Your task to perform on an android device: Open Wikipedia Image 0: 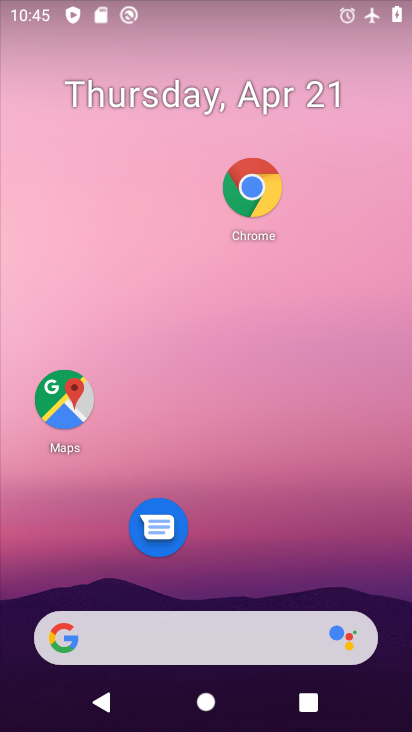
Step 0: drag from (278, 637) to (302, 403)
Your task to perform on an android device: Open Wikipedia Image 1: 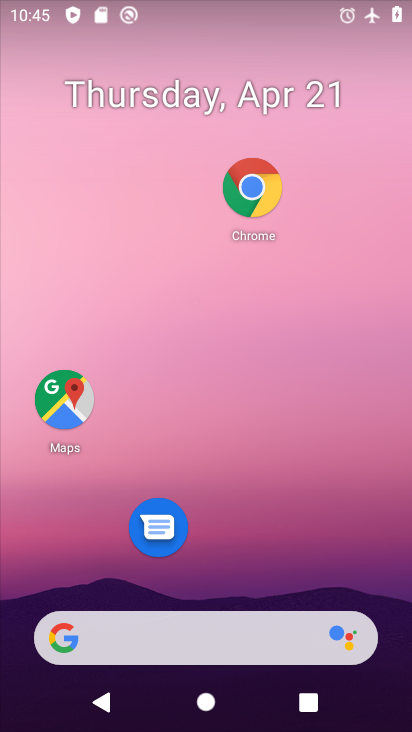
Step 1: click (271, 231)
Your task to perform on an android device: Open Wikipedia Image 2: 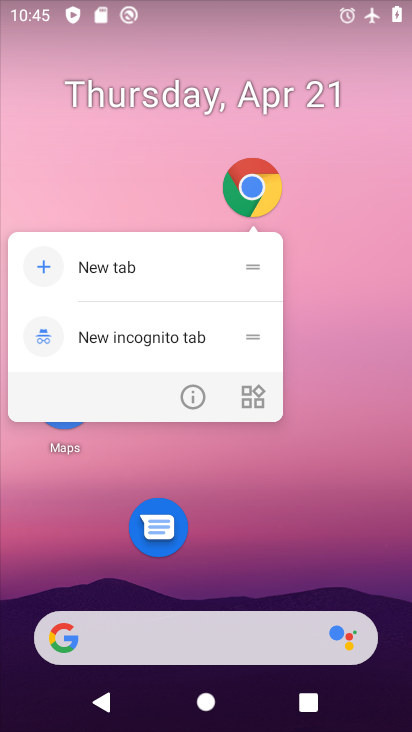
Step 2: click (266, 172)
Your task to perform on an android device: Open Wikipedia Image 3: 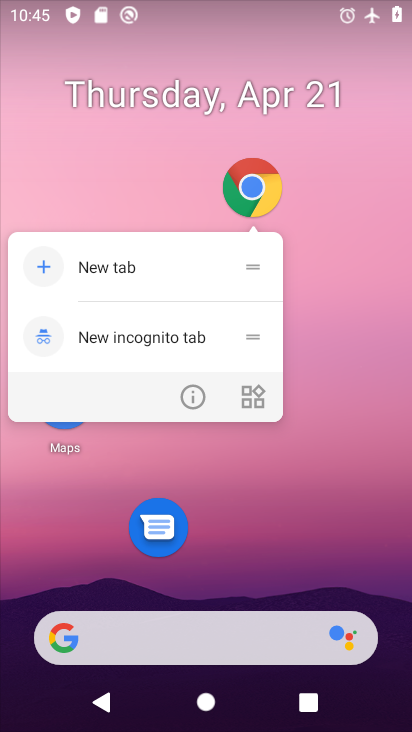
Step 3: click (257, 198)
Your task to perform on an android device: Open Wikipedia Image 4: 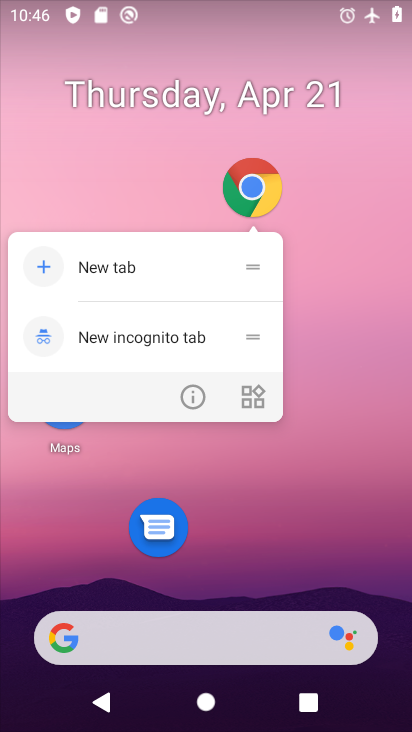
Step 4: click (256, 202)
Your task to perform on an android device: Open Wikipedia Image 5: 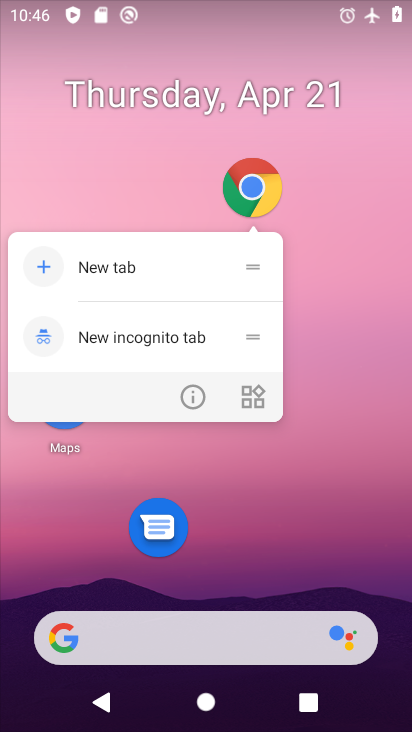
Step 5: click (257, 203)
Your task to perform on an android device: Open Wikipedia Image 6: 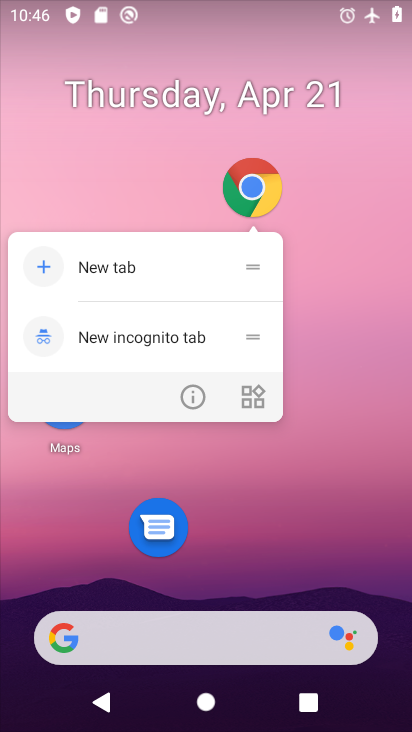
Step 6: click (257, 203)
Your task to perform on an android device: Open Wikipedia Image 7: 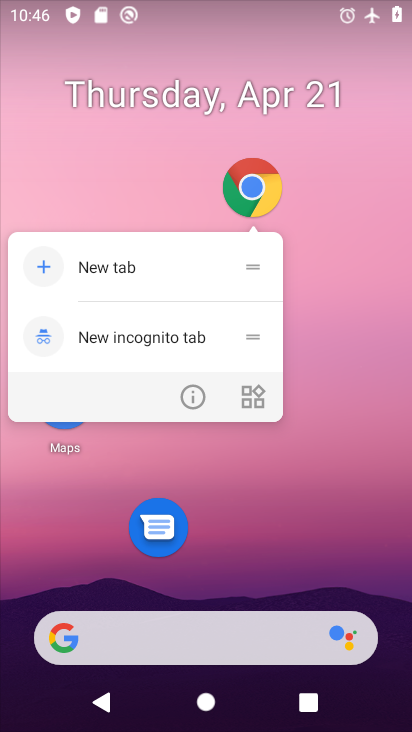
Step 7: click (261, 204)
Your task to perform on an android device: Open Wikipedia Image 8: 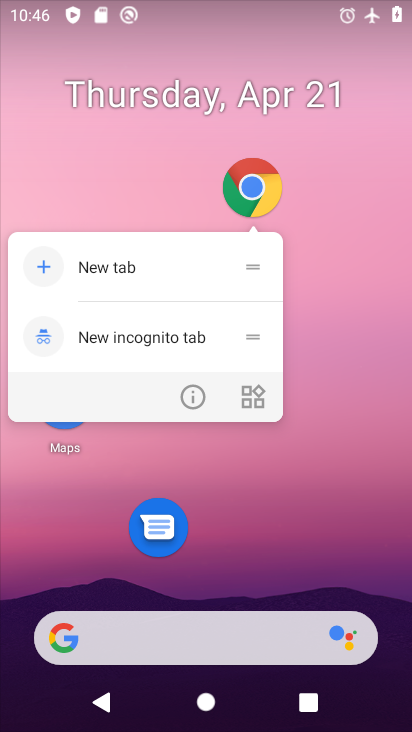
Step 8: click (271, 191)
Your task to perform on an android device: Open Wikipedia Image 9: 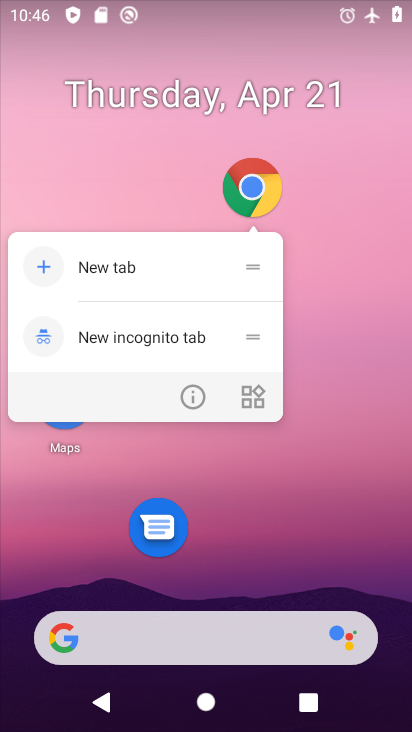
Step 9: click (271, 191)
Your task to perform on an android device: Open Wikipedia Image 10: 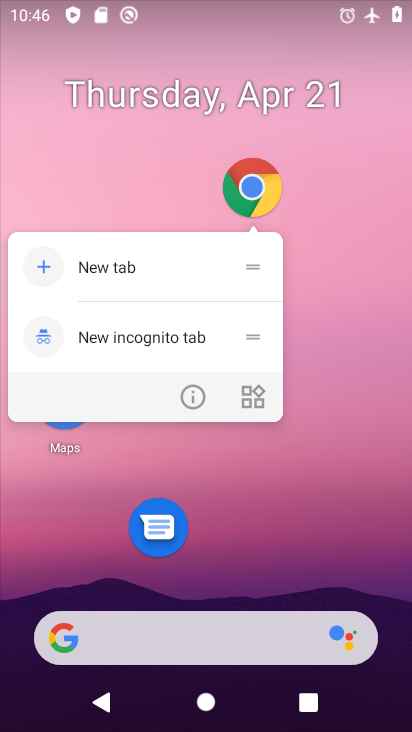
Step 10: click (268, 199)
Your task to perform on an android device: Open Wikipedia Image 11: 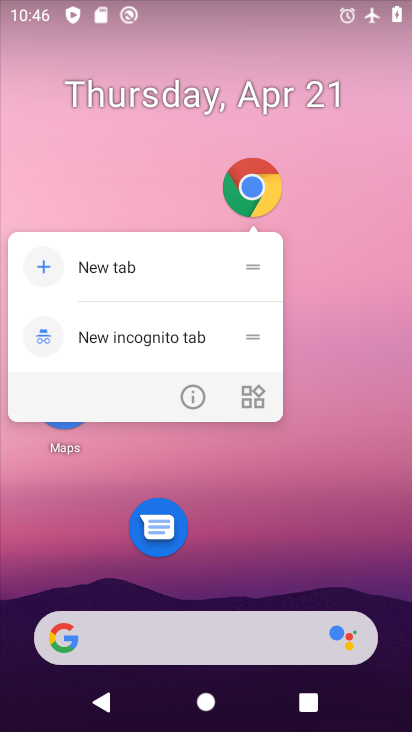
Step 11: click (267, 203)
Your task to perform on an android device: Open Wikipedia Image 12: 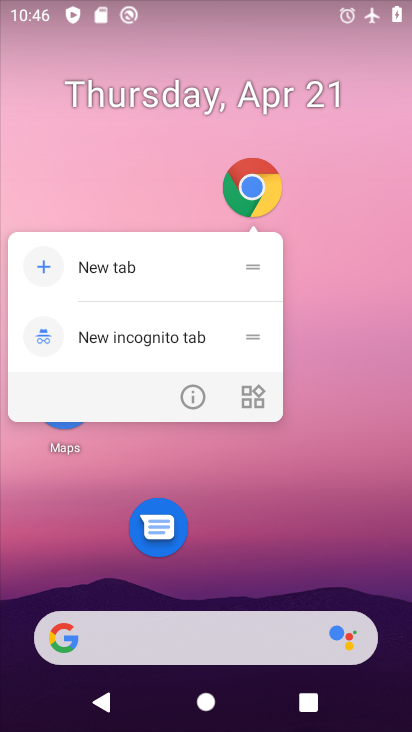
Step 12: click (265, 209)
Your task to perform on an android device: Open Wikipedia Image 13: 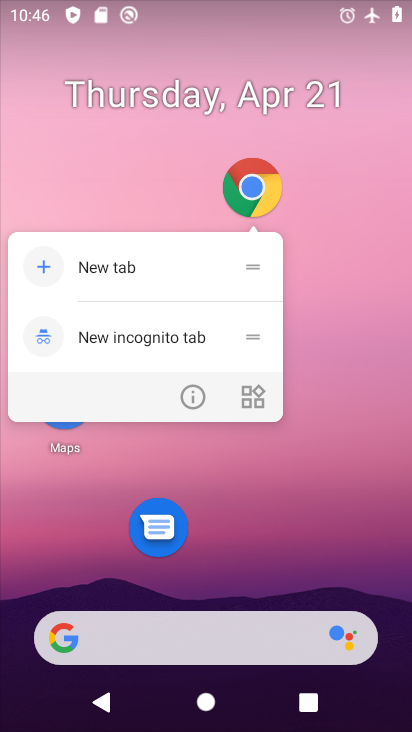
Step 13: click (268, 212)
Your task to perform on an android device: Open Wikipedia Image 14: 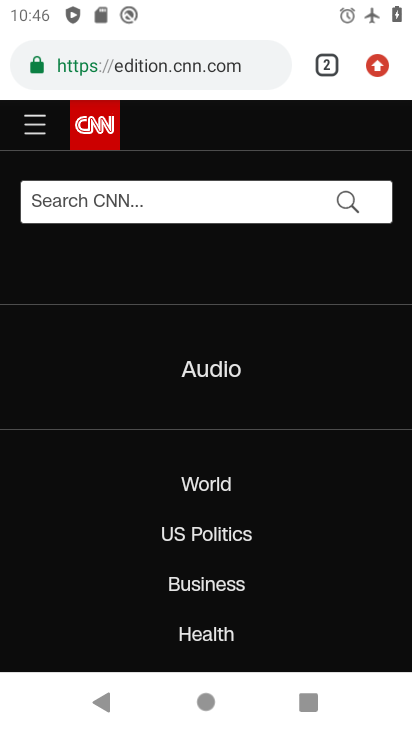
Step 14: click (253, 68)
Your task to perform on an android device: Open Wikipedia Image 15: 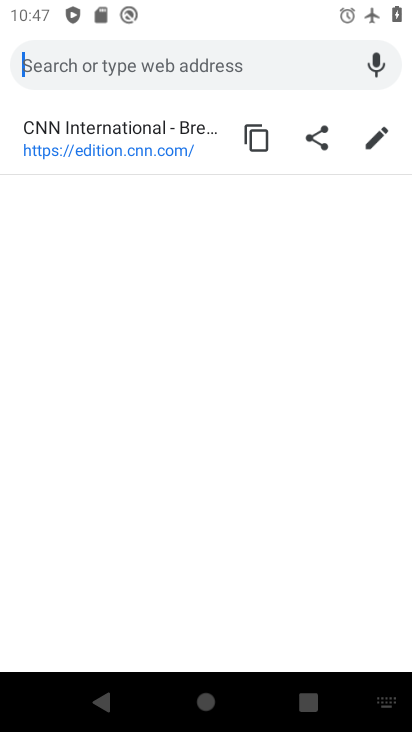
Step 15: type "wikipedia"
Your task to perform on an android device: Open Wikipedia Image 16: 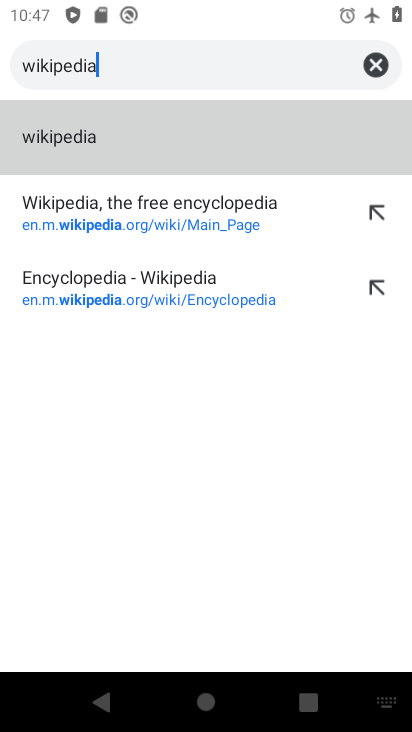
Step 16: click (249, 218)
Your task to perform on an android device: Open Wikipedia Image 17: 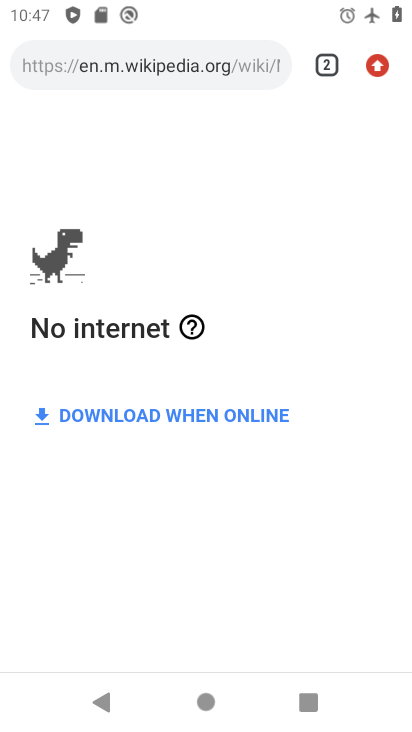
Step 17: task complete